Your task to perform on an android device: Open Google Chrome and click the shortcut for Amazon.com Image 0: 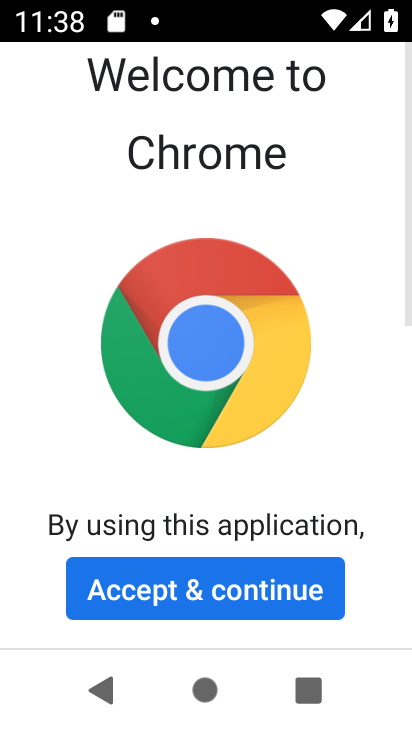
Step 0: press home button
Your task to perform on an android device: Open Google Chrome and click the shortcut for Amazon.com Image 1: 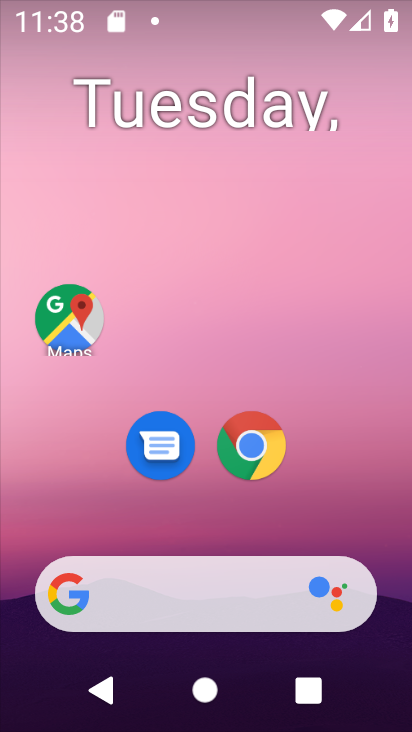
Step 1: drag from (407, 592) to (321, 0)
Your task to perform on an android device: Open Google Chrome and click the shortcut for Amazon.com Image 2: 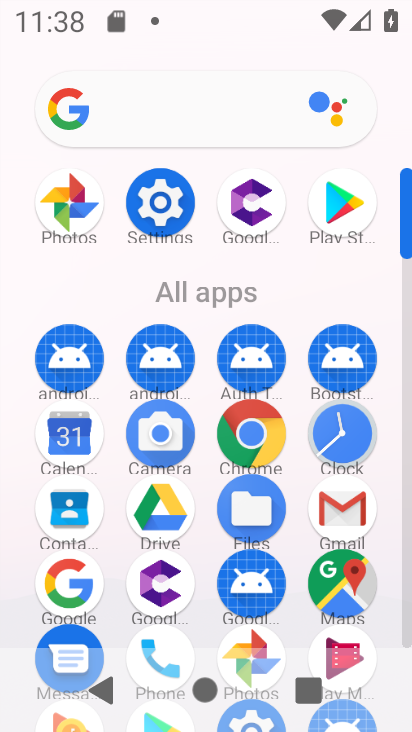
Step 2: click (267, 444)
Your task to perform on an android device: Open Google Chrome and click the shortcut for Amazon.com Image 3: 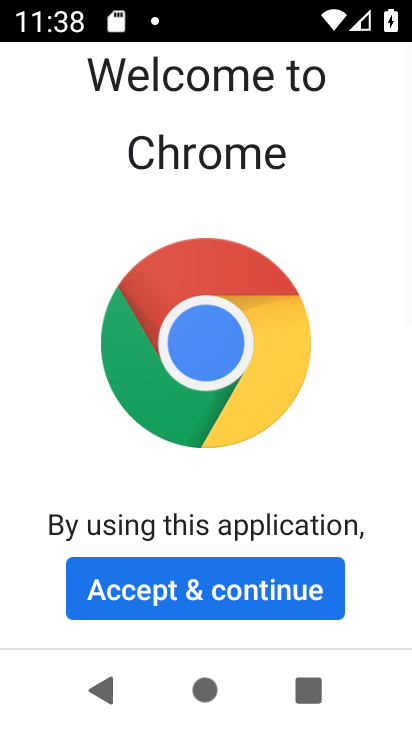
Step 3: click (238, 574)
Your task to perform on an android device: Open Google Chrome and click the shortcut for Amazon.com Image 4: 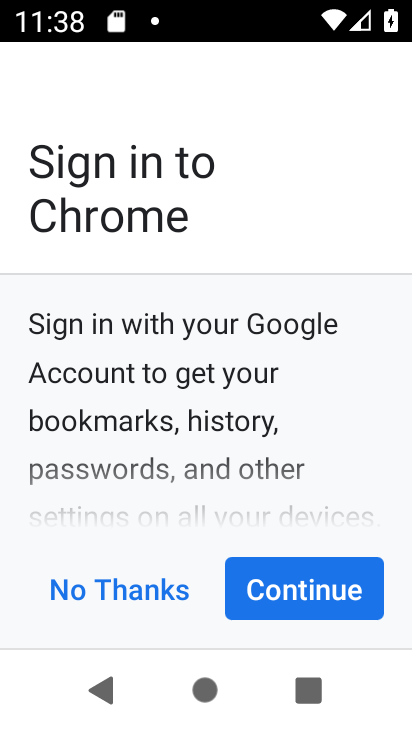
Step 4: click (357, 603)
Your task to perform on an android device: Open Google Chrome and click the shortcut for Amazon.com Image 5: 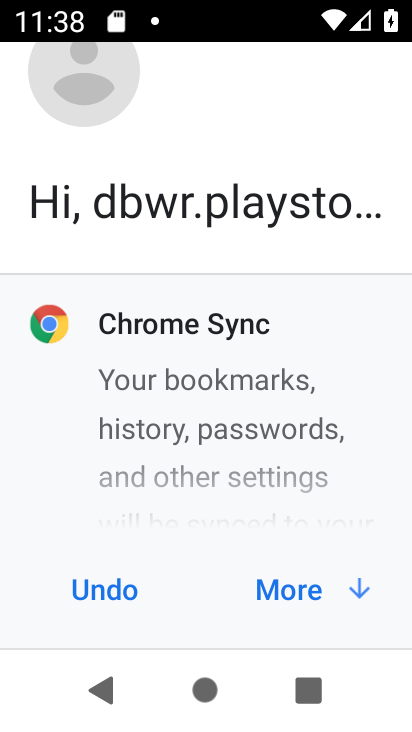
Step 5: click (357, 603)
Your task to perform on an android device: Open Google Chrome and click the shortcut for Amazon.com Image 6: 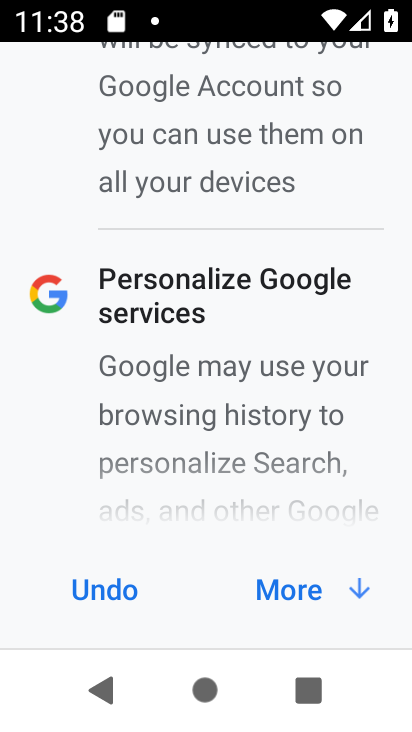
Step 6: click (319, 599)
Your task to perform on an android device: Open Google Chrome and click the shortcut for Amazon.com Image 7: 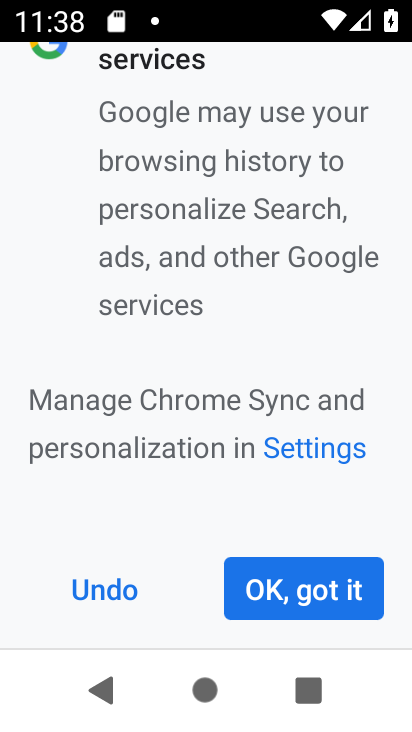
Step 7: click (319, 599)
Your task to perform on an android device: Open Google Chrome and click the shortcut for Amazon.com Image 8: 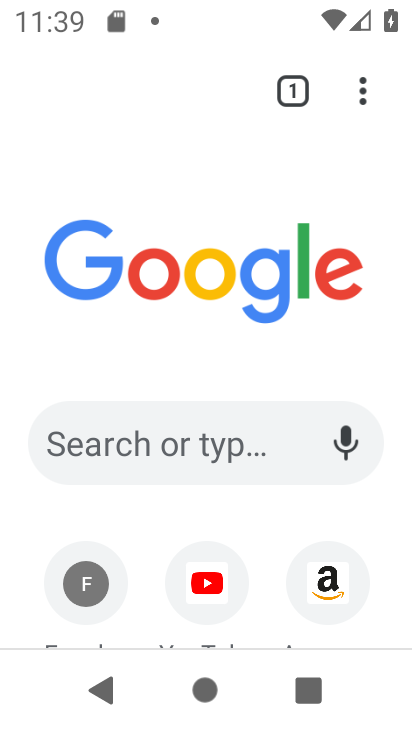
Step 8: click (345, 566)
Your task to perform on an android device: Open Google Chrome and click the shortcut for Amazon.com Image 9: 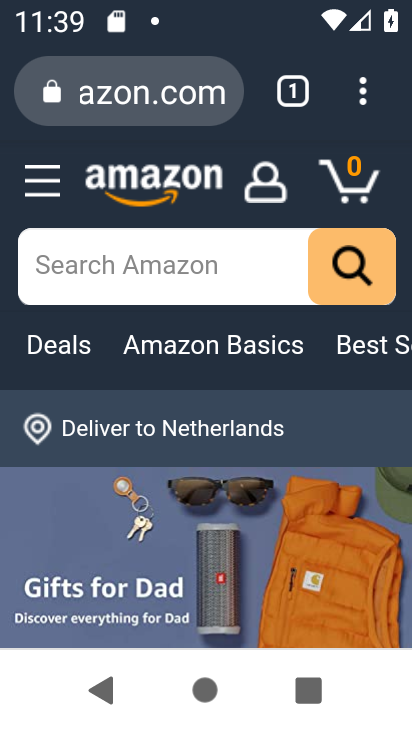
Step 9: task complete